Your task to perform on an android device: install app "PlayWell" Image 0: 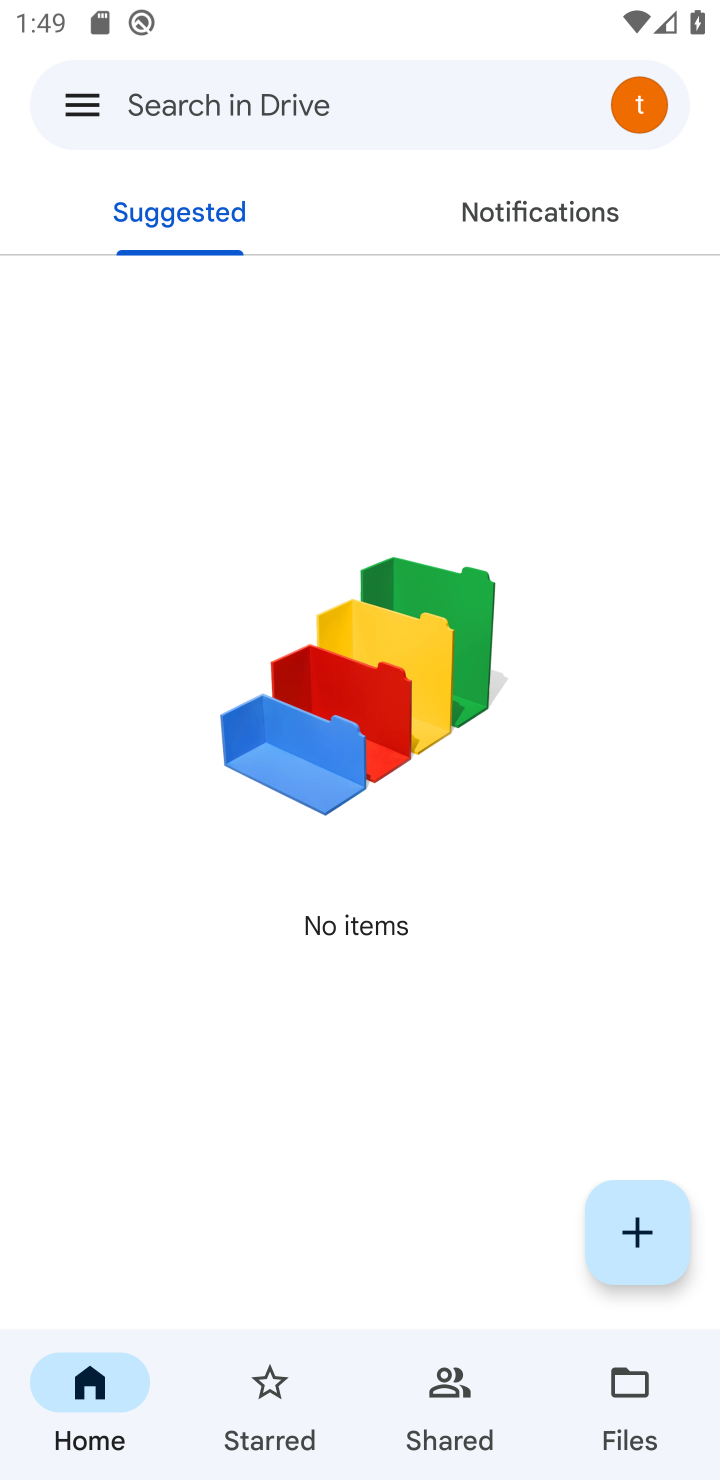
Step 0: press home button
Your task to perform on an android device: install app "PlayWell" Image 1: 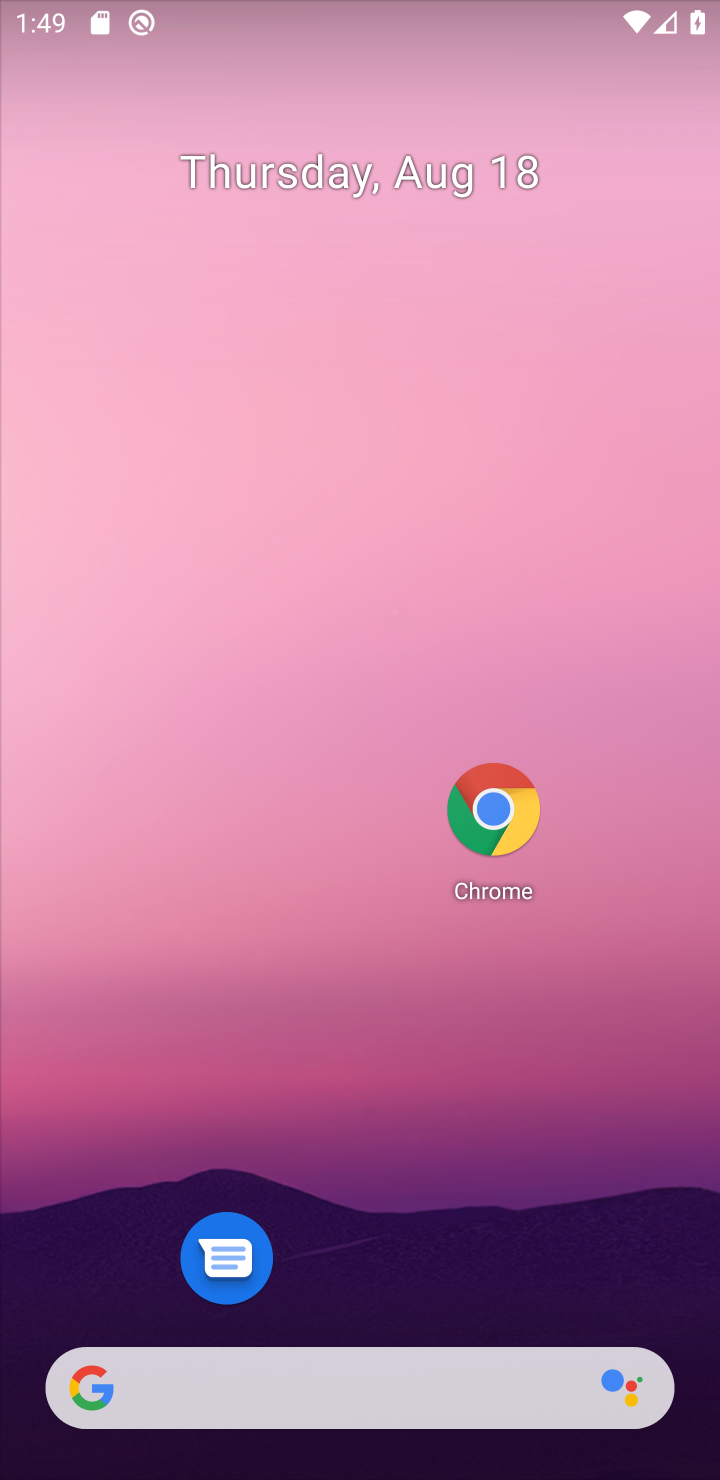
Step 1: drag from (377, 1257) to (363, 780)
Your task to perform on an android device: install app "PlayWell" Image 2: 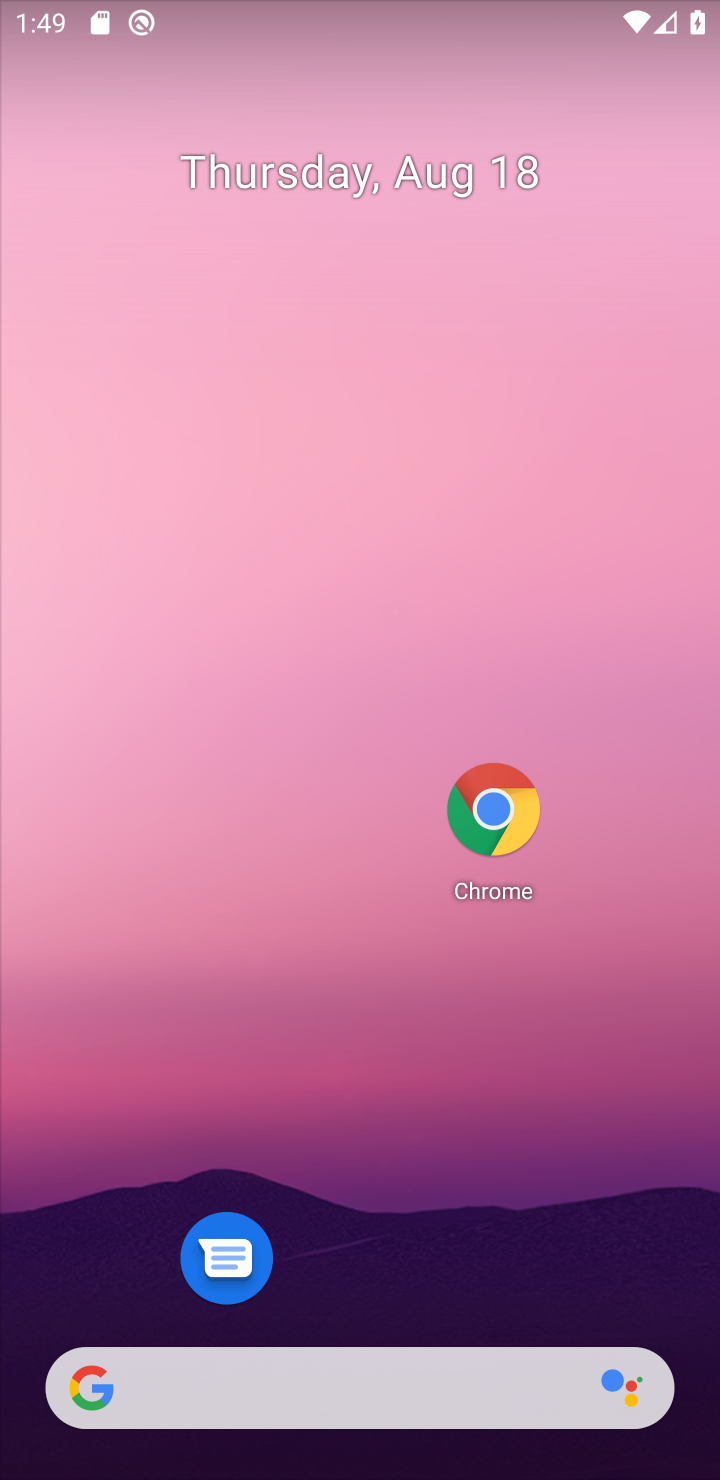
Step 2: drag from (400, 1183) to (392, 438)
Your task to perform on an android device: install app "PlayWell" Image 3: 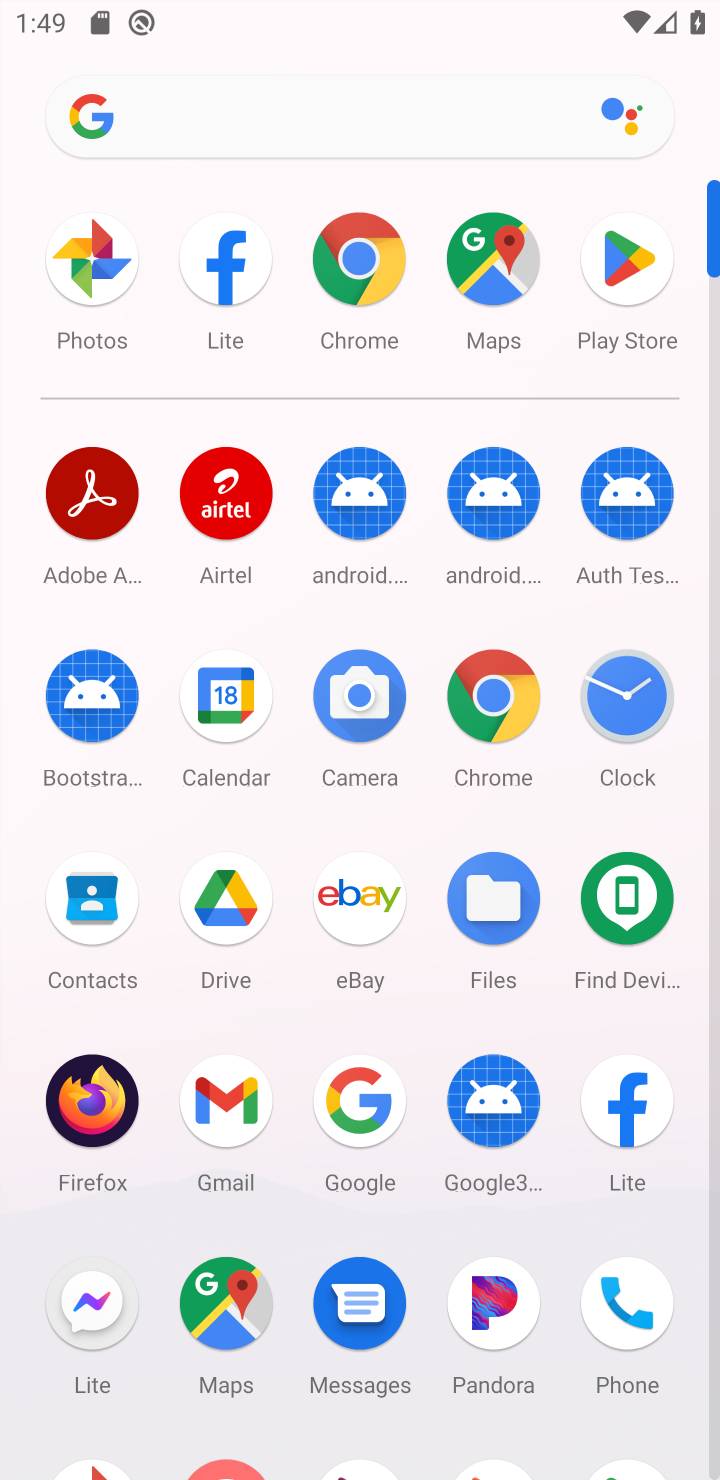
Step 3: click (586, 265)
Your task to perform on an android device: install app "PlayWell" Image 4: 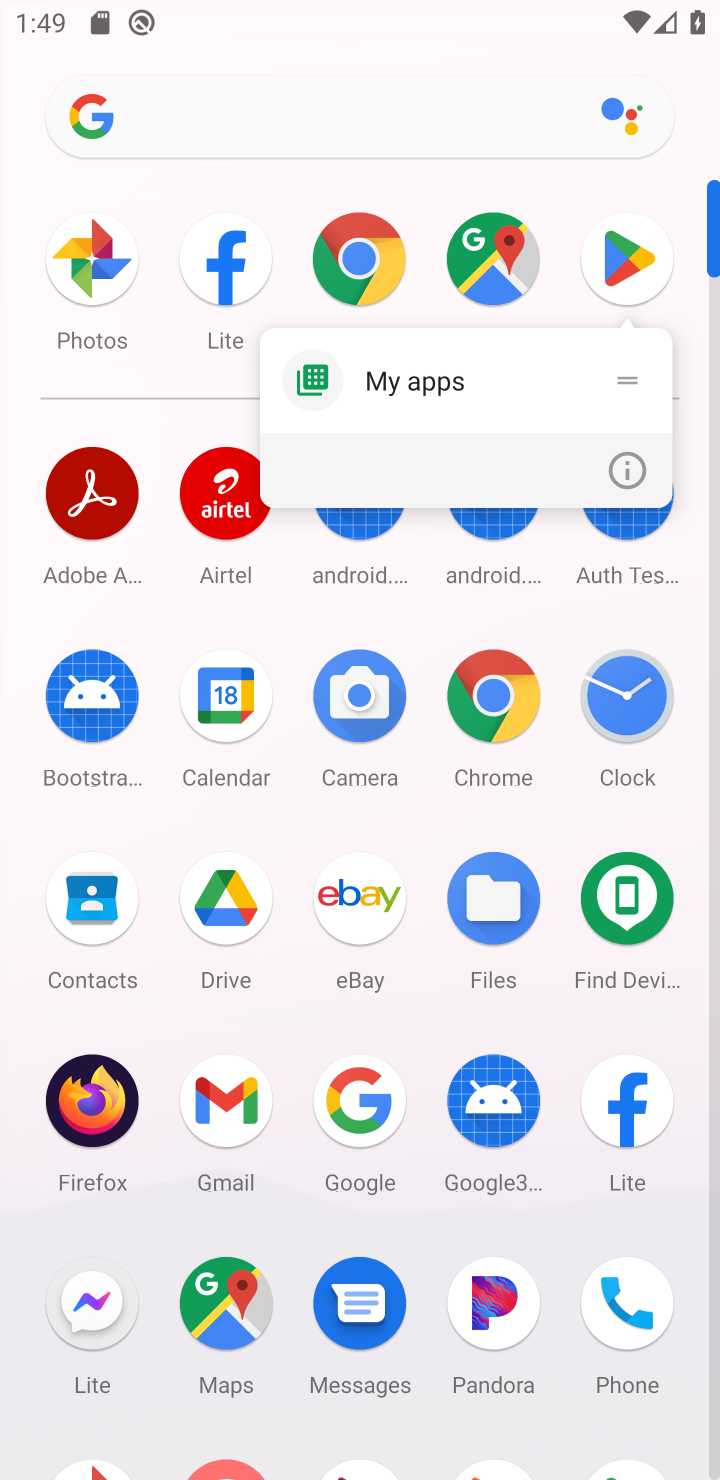
Step 4: click (643, 256)
Your task to perform on an android device: install app "PlayWell" Image 5: 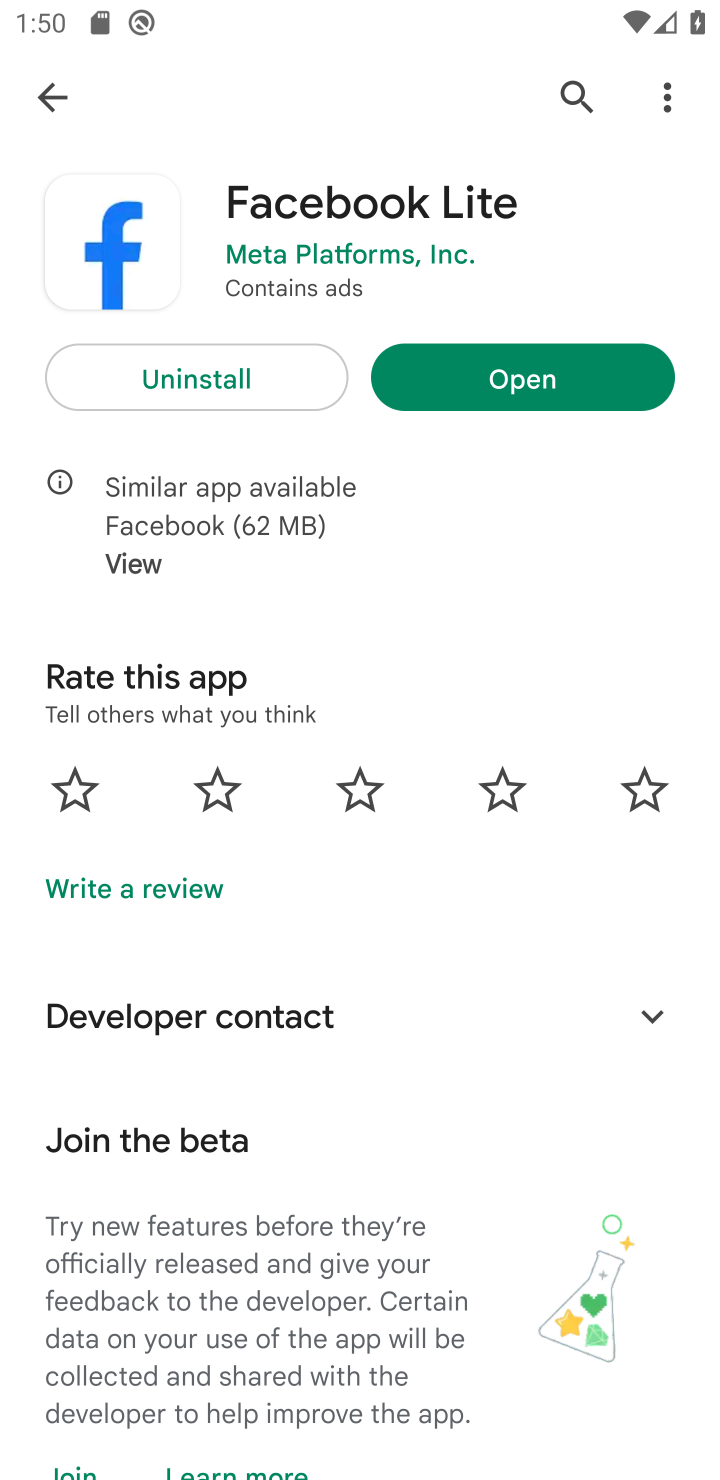
Step 5: click (581, 345)
Your task to perform on an android device: install app "PlayWell" Image 6: 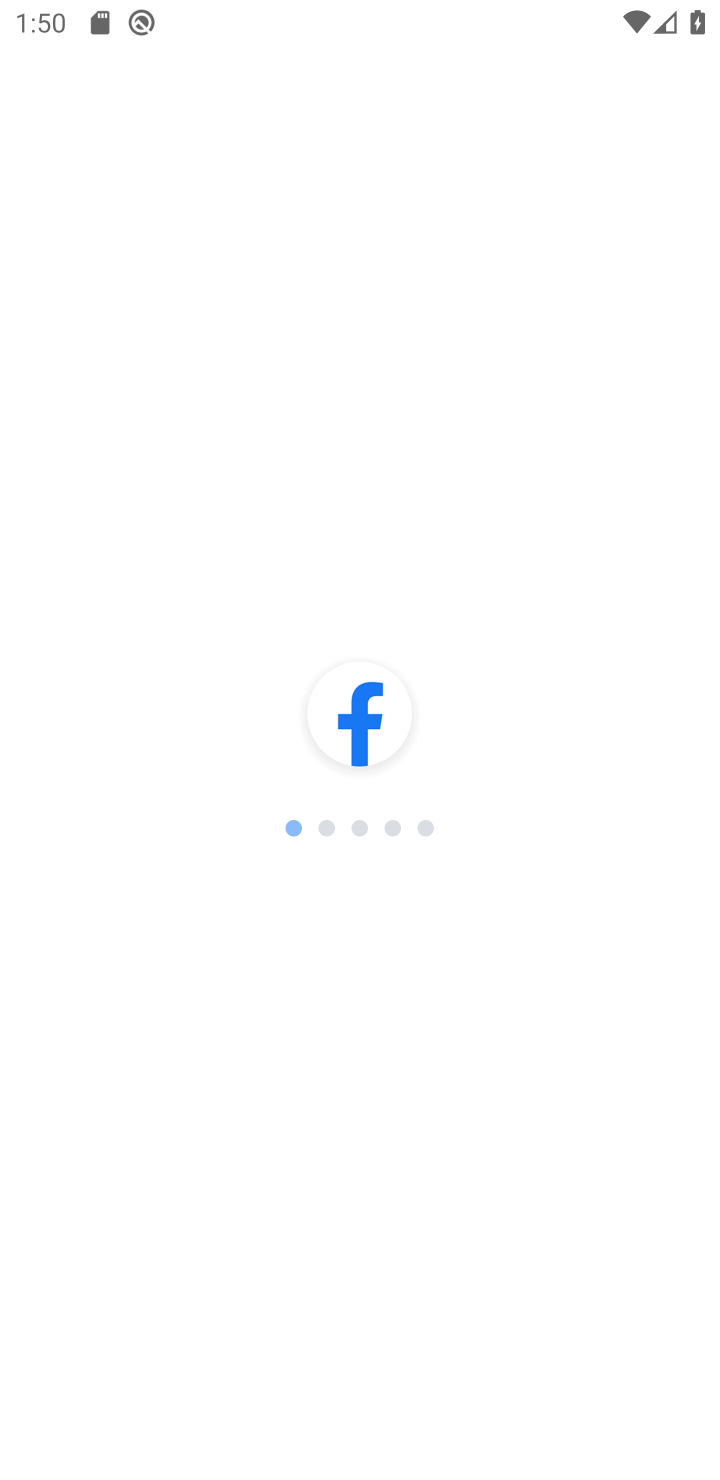
Step 6: press back button
Your task to perform on an android device: install app "PlayWell" Image 7: 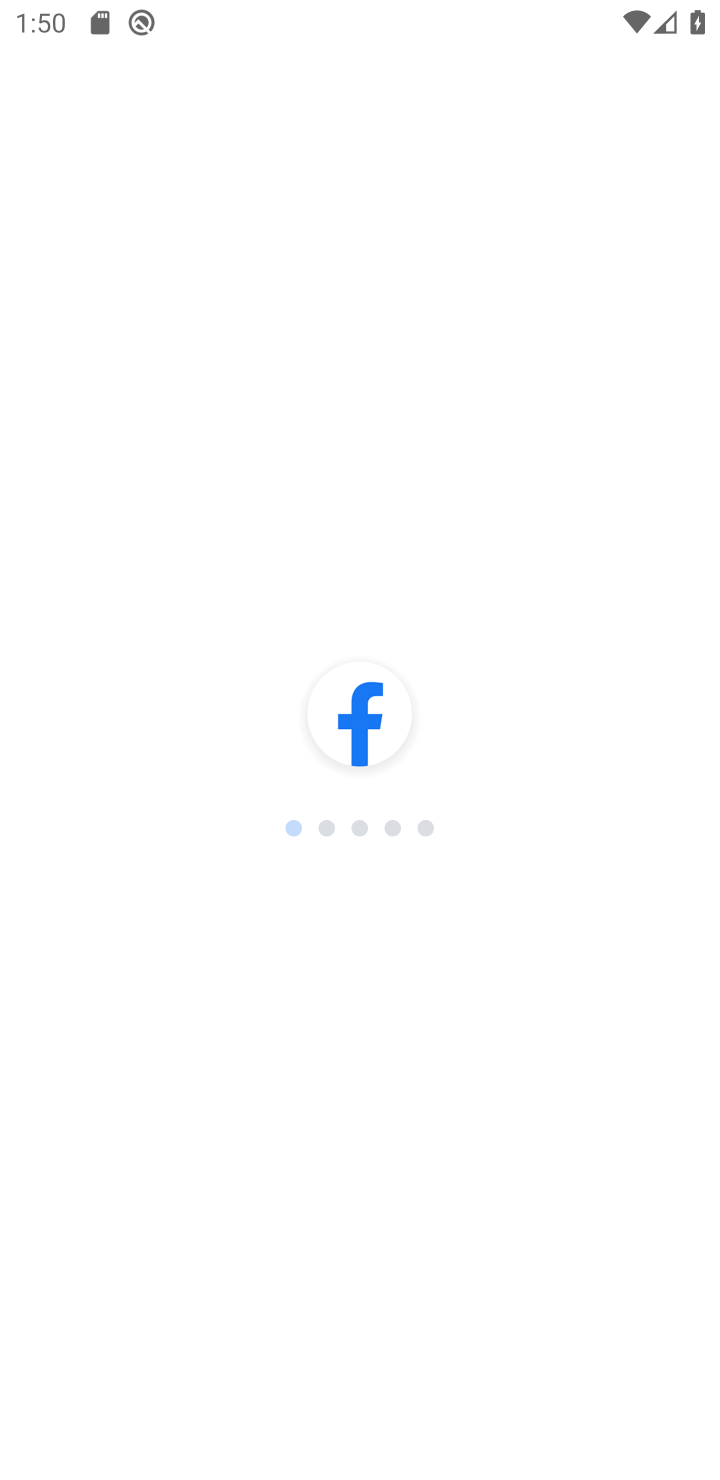
Step 7: press back button
Your task to perform on an android device: install app "PlayWell" Image 8: 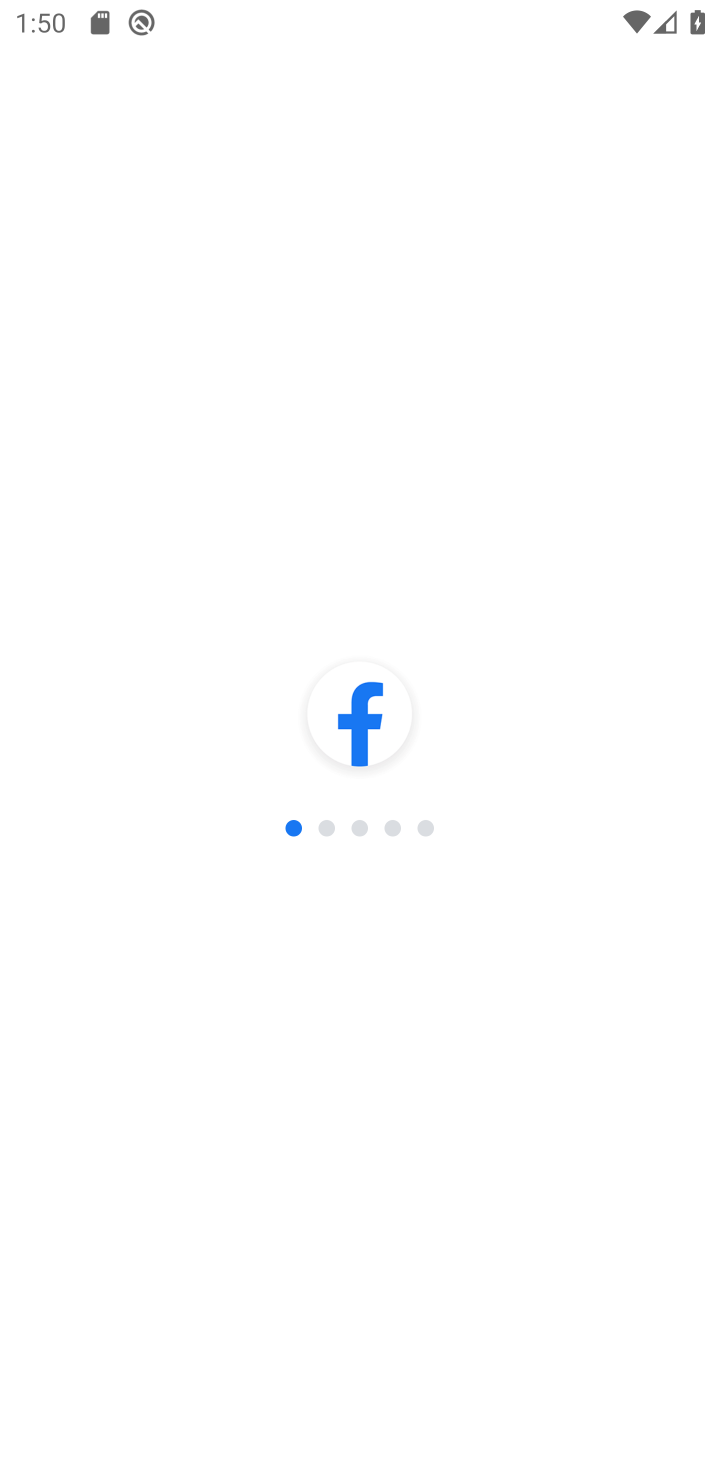
Step 8: press home button
Your task to perform on an android device: install app "PlayWell" Image 9: 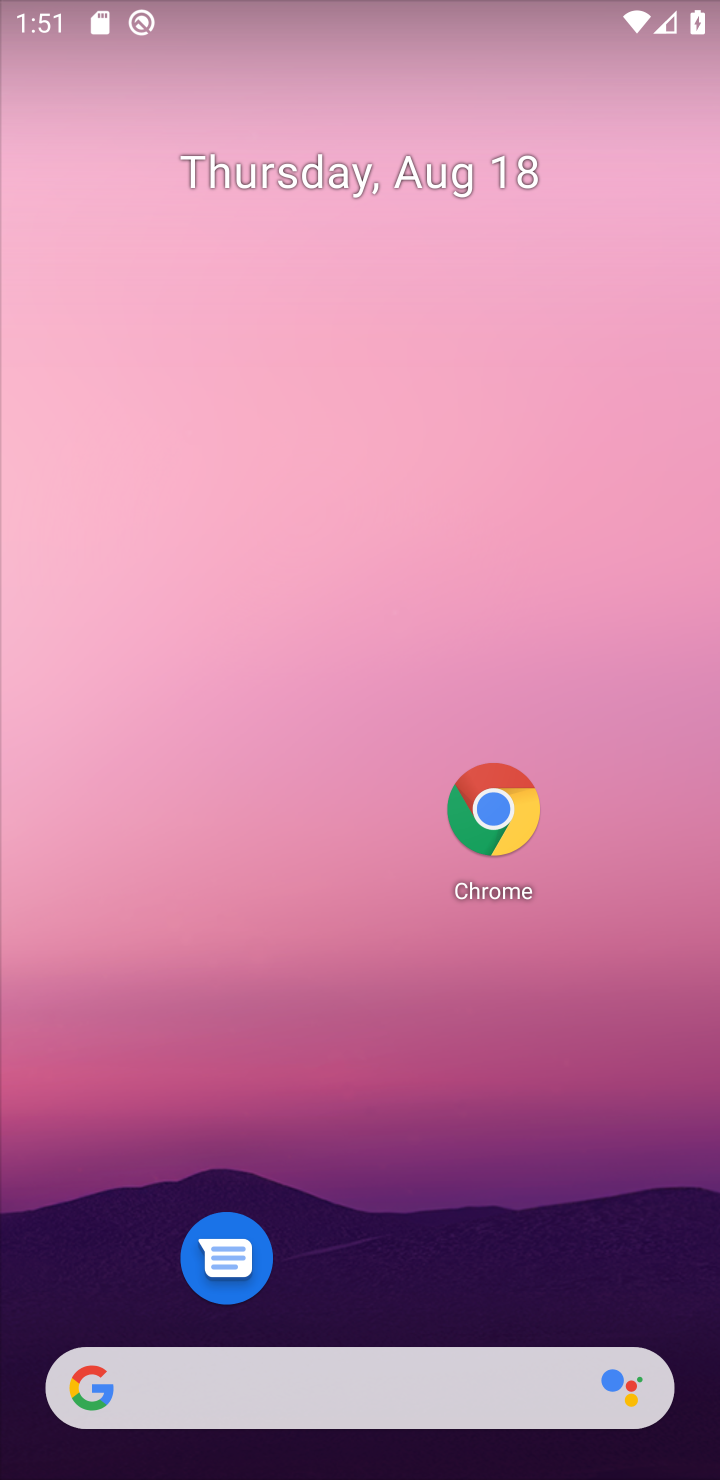
Step 9: click (360, 395)
Your task to perform on an android device: install app "PlayWell" Image 10: 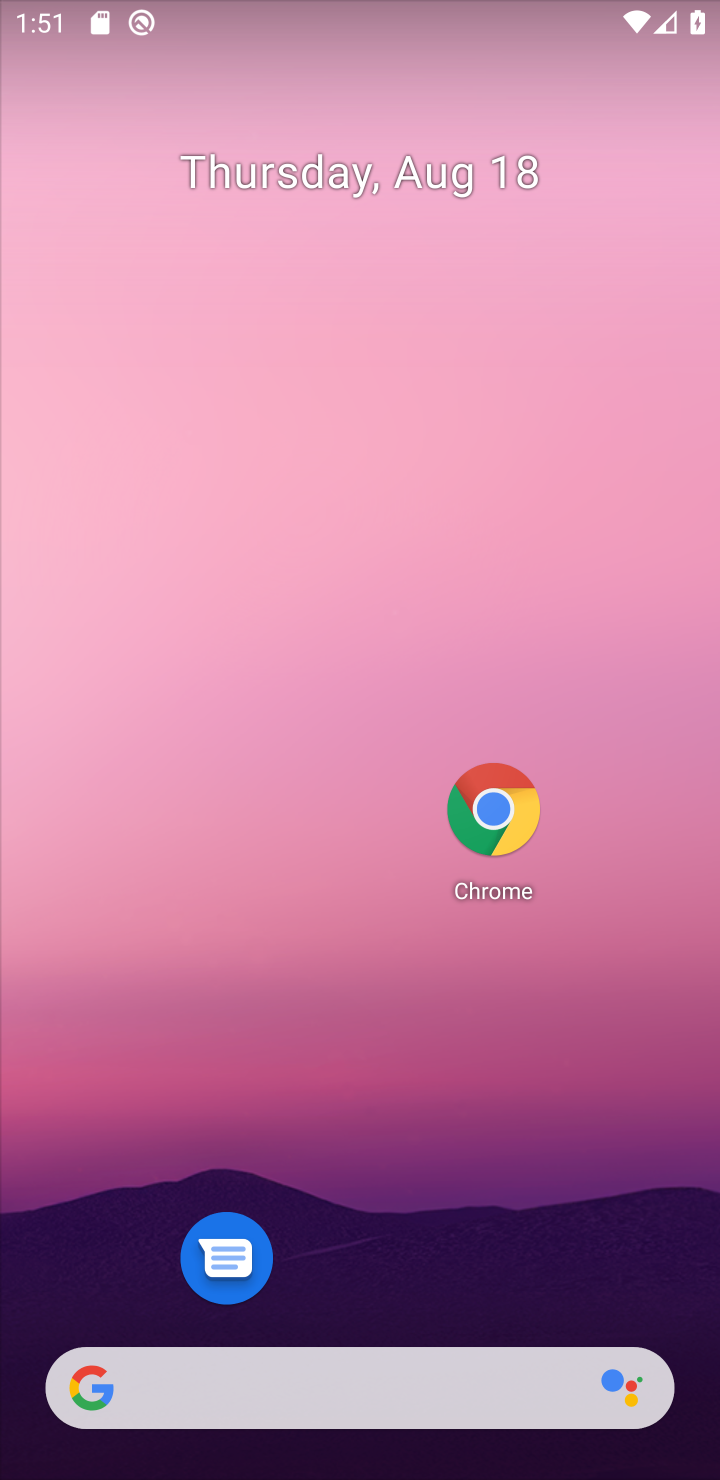
Step 10: drag from (336, 509) to (333, 332)
Your task to perform on an android device: install app "PlayWell" Image 11: 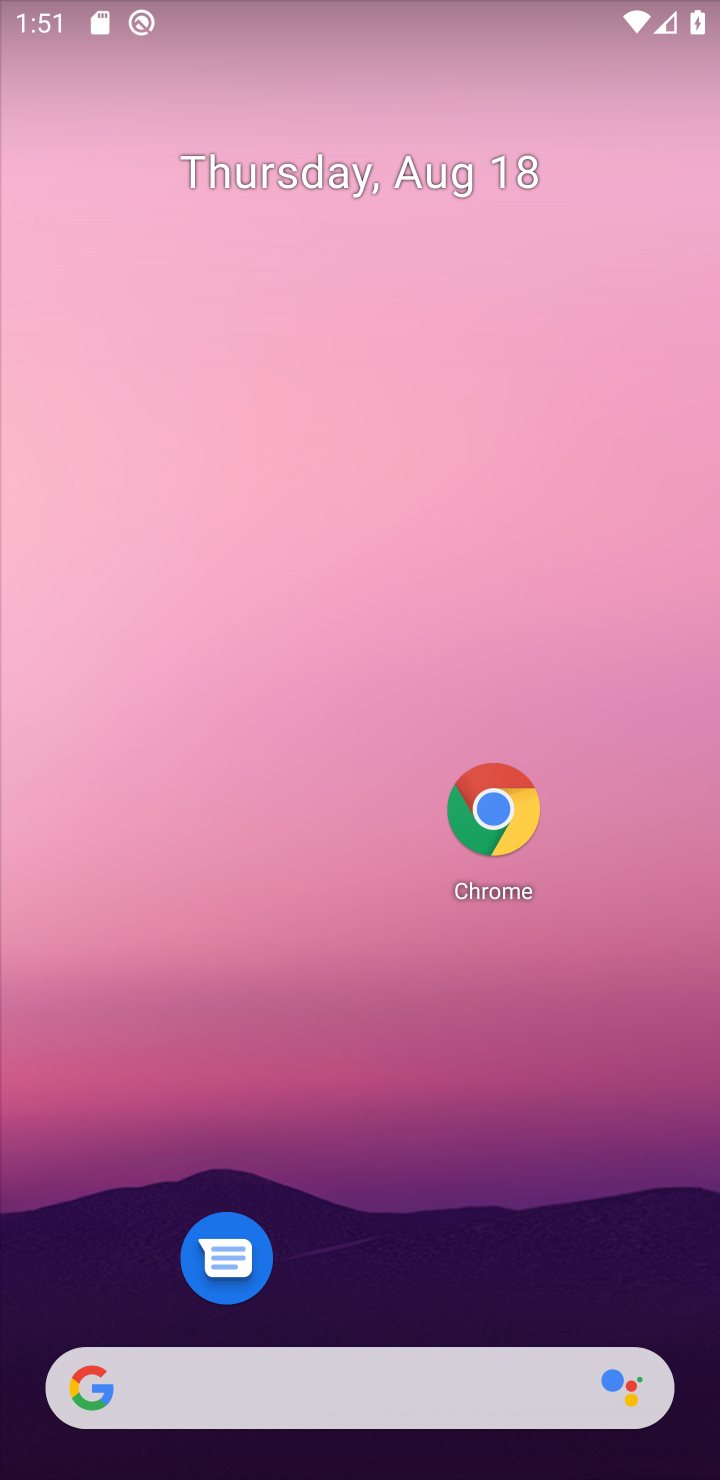
Step 11: drag from (336, 1010) to (291, 277)
Your task to perform on an android device: install app "PlayWell" Image 12: 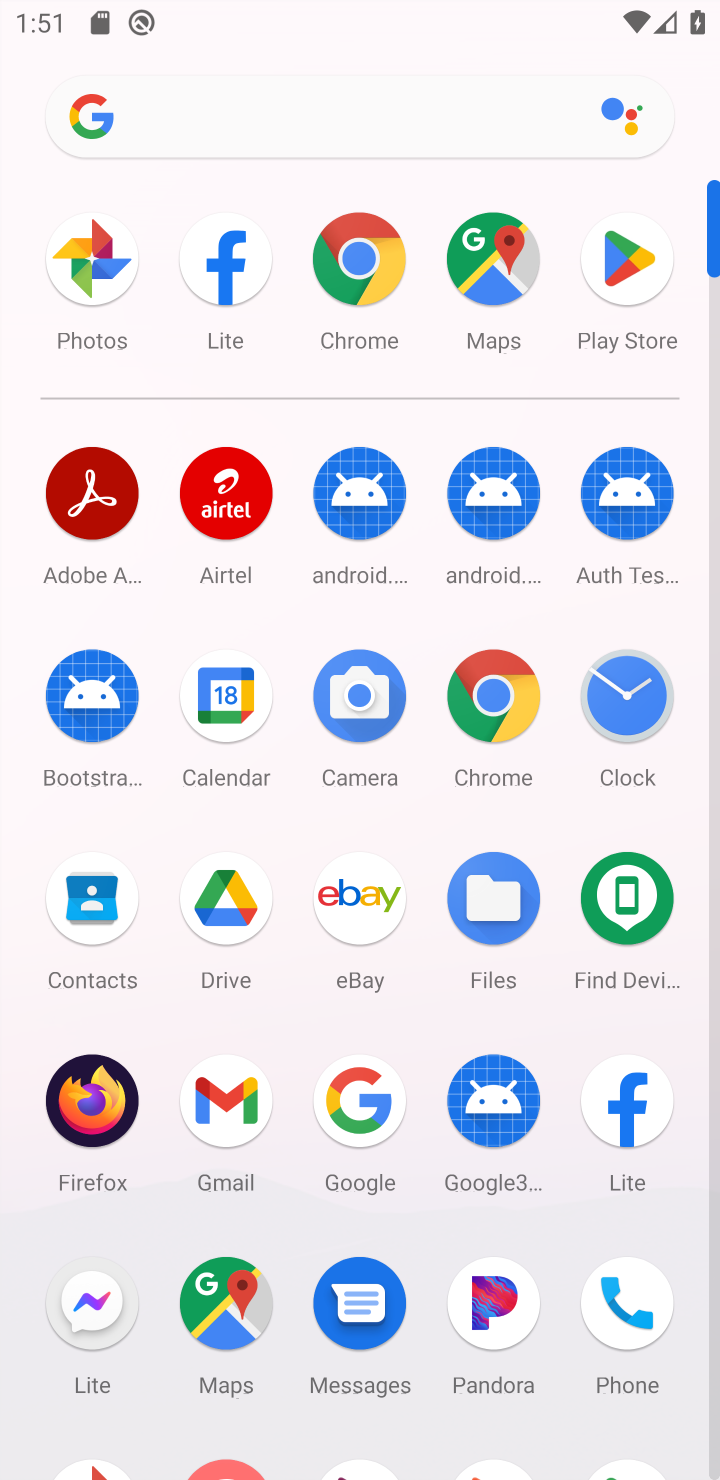
Step 12: click (608, 260)
Your task to perform on an android device: install app "PlayWell" Image 13: 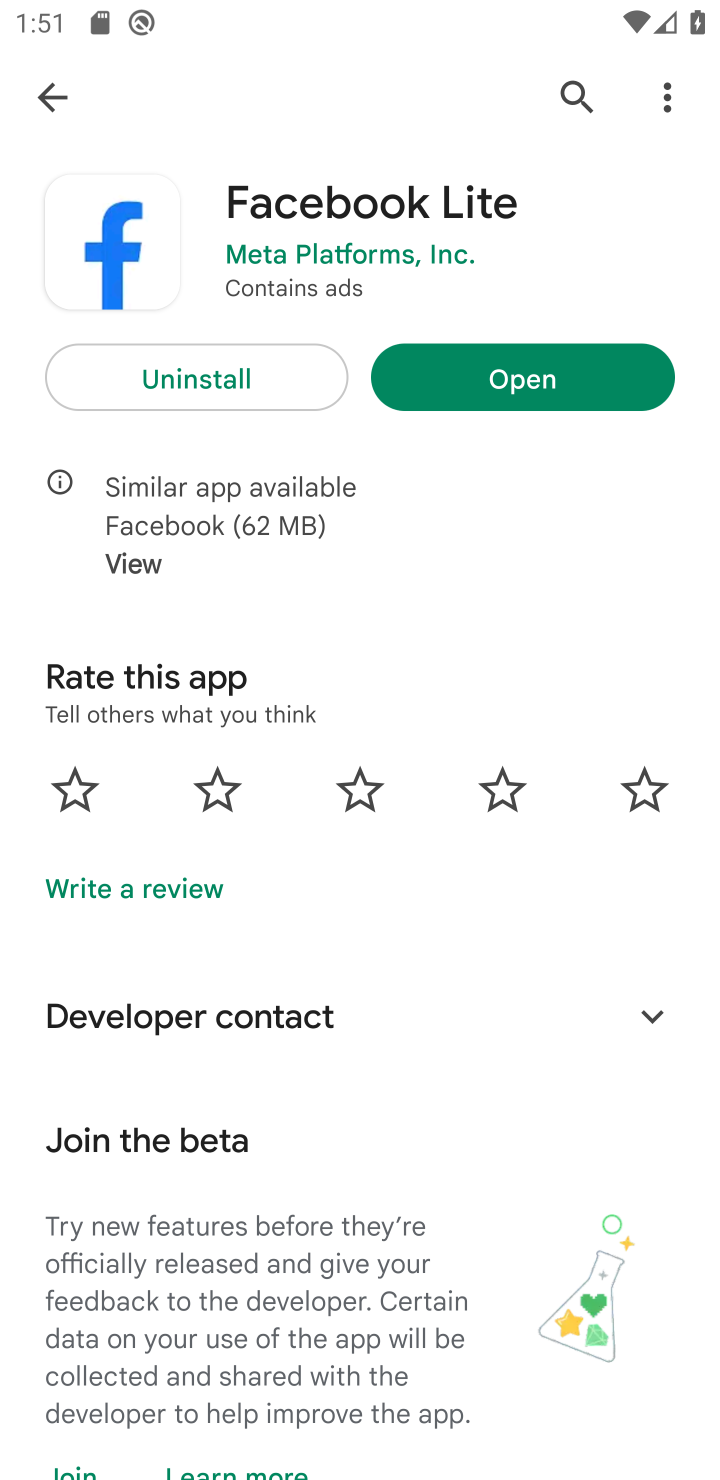
Step 13: click (35, 64)
Your task to perform on an android device: install app "PlayWell" Image 14: 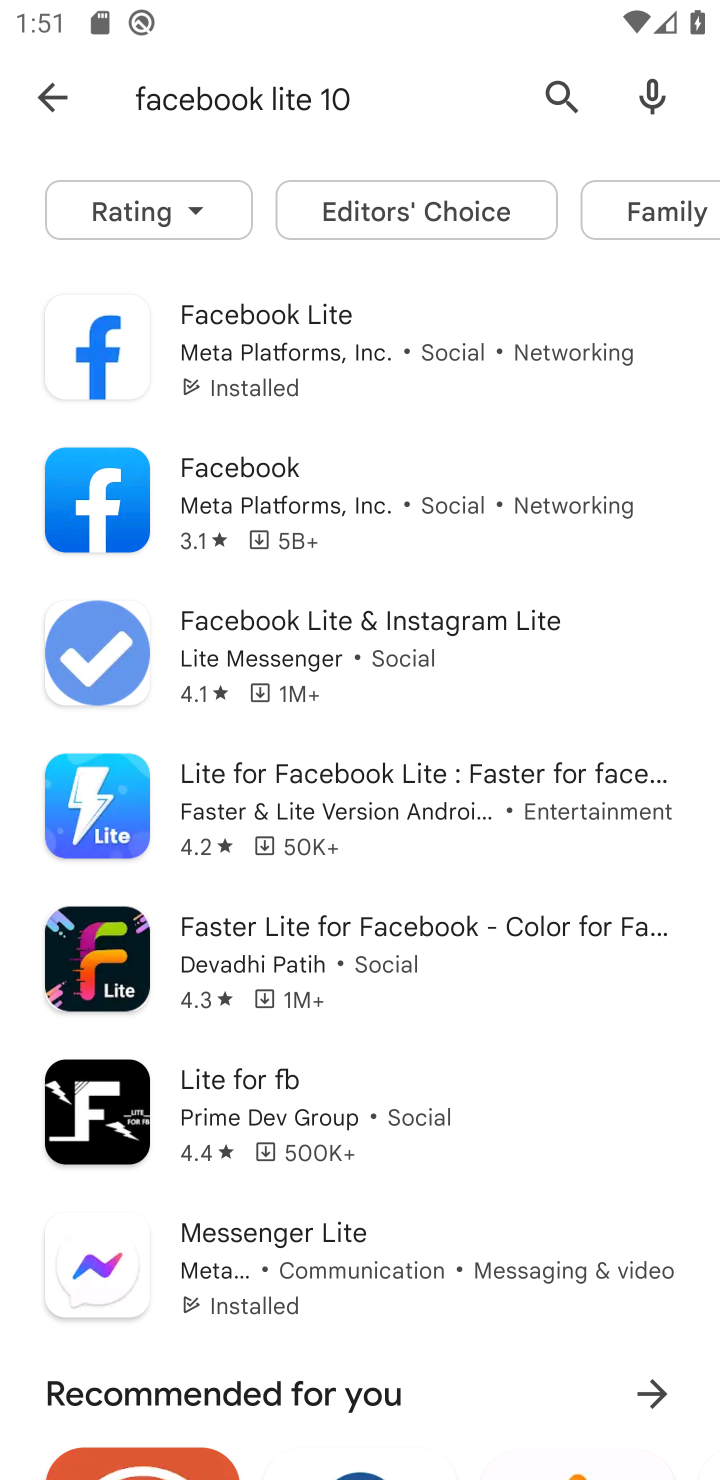
Step 14: click (564, 81)
Your task to perform on an android device: install app "PlayWell" Image 15: 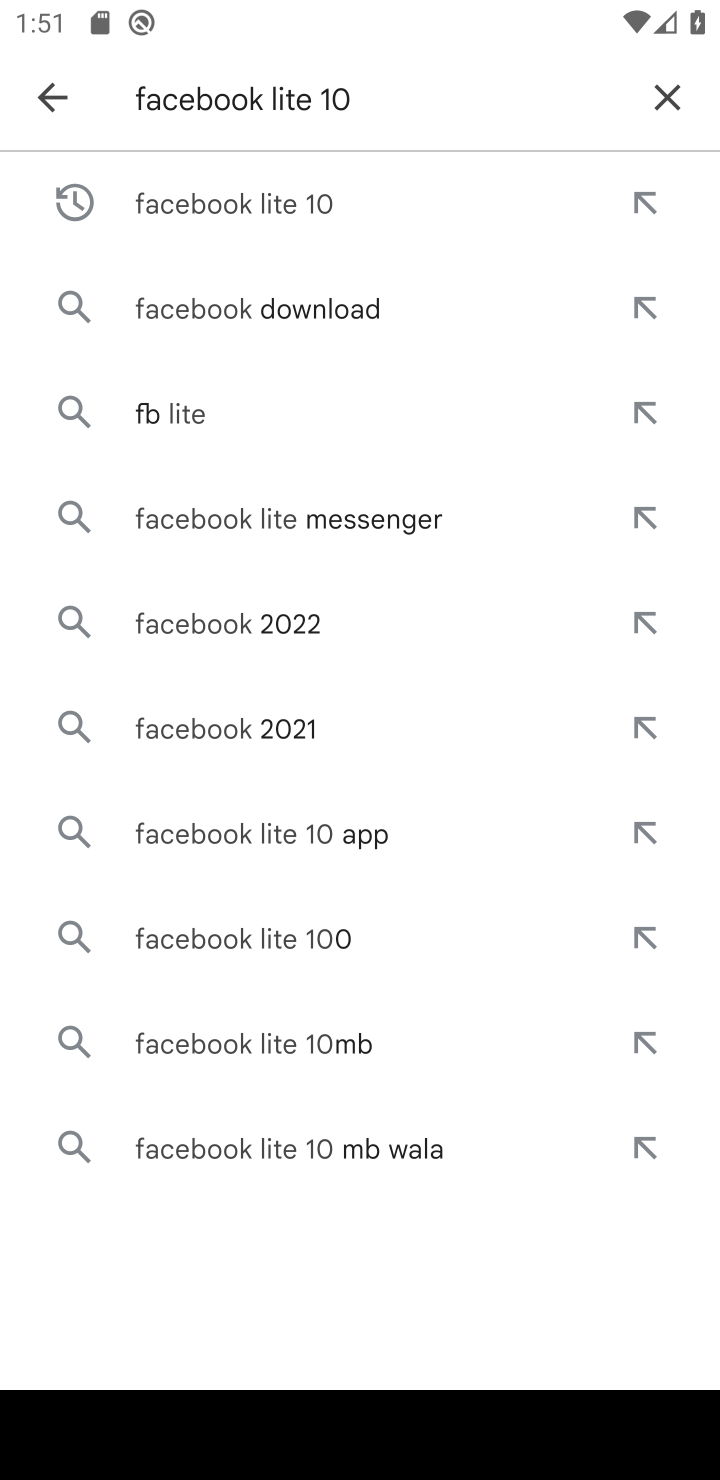
Step 15: click (673, 88)
Your task to perform on an android device: install app "PlayWell" Image 16: 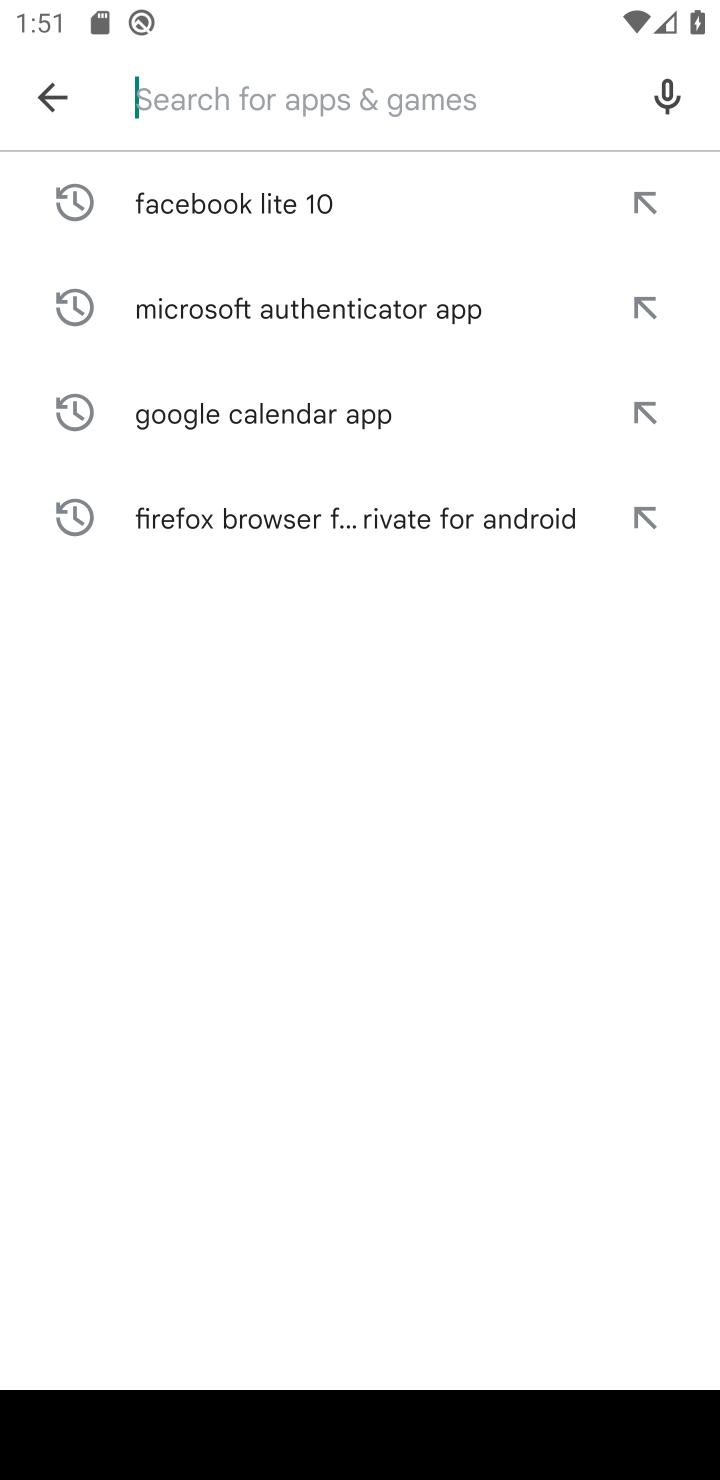
Step 16: click (233, 89)
Your task to perform on an android device: install app "PlayWell" Image 17: 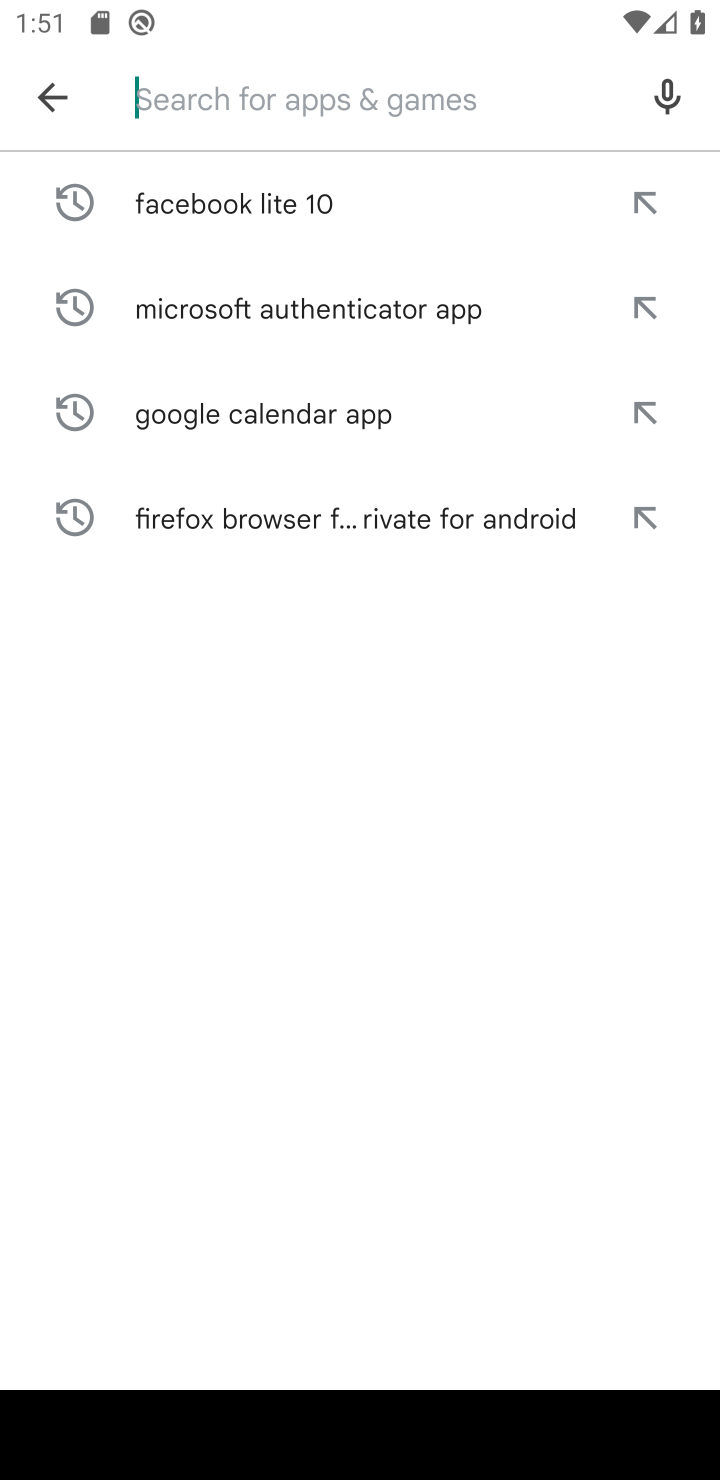
Step 17: type "PlayWell "
Your task to perform on an android device: install app "PlayWell" Image 18: 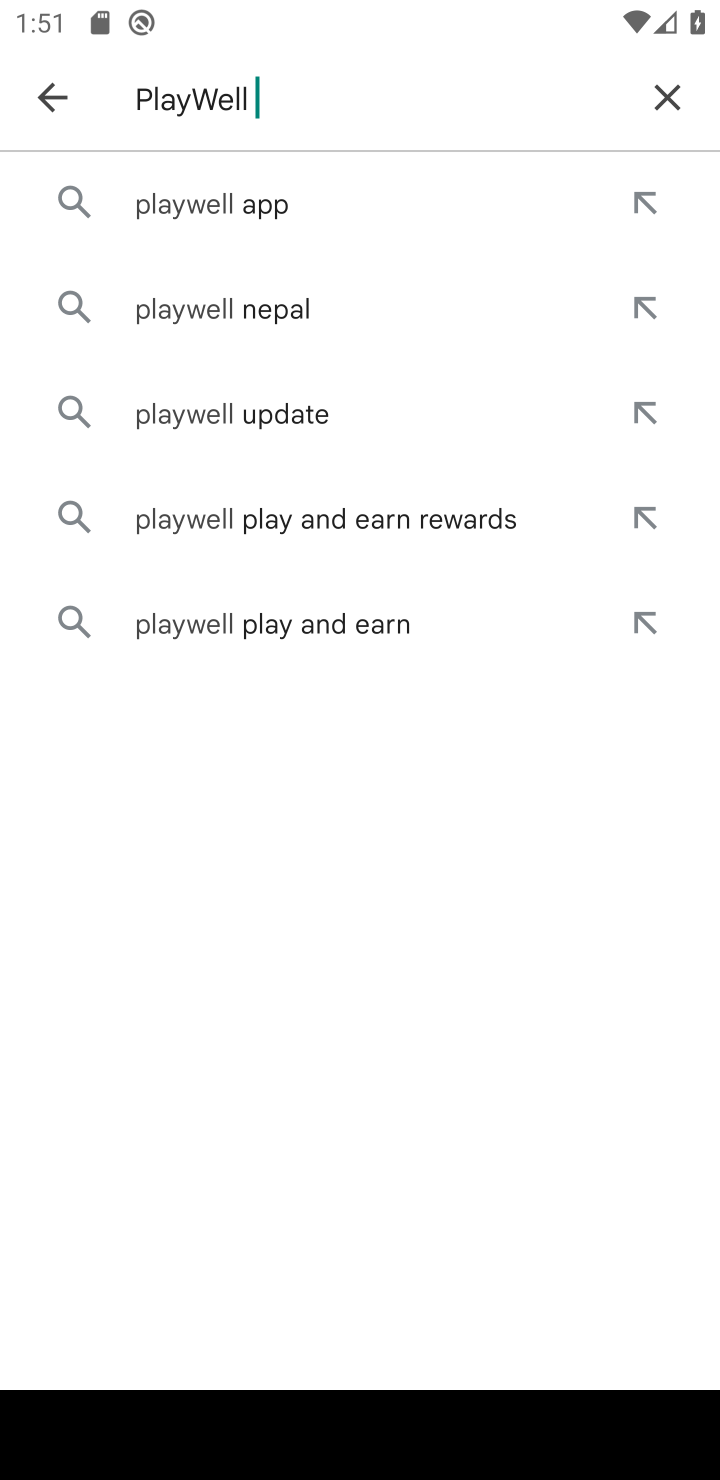
Step 18: click (265, 203)
Your task to perform on an android device: install app "PlayWell" Image 19: 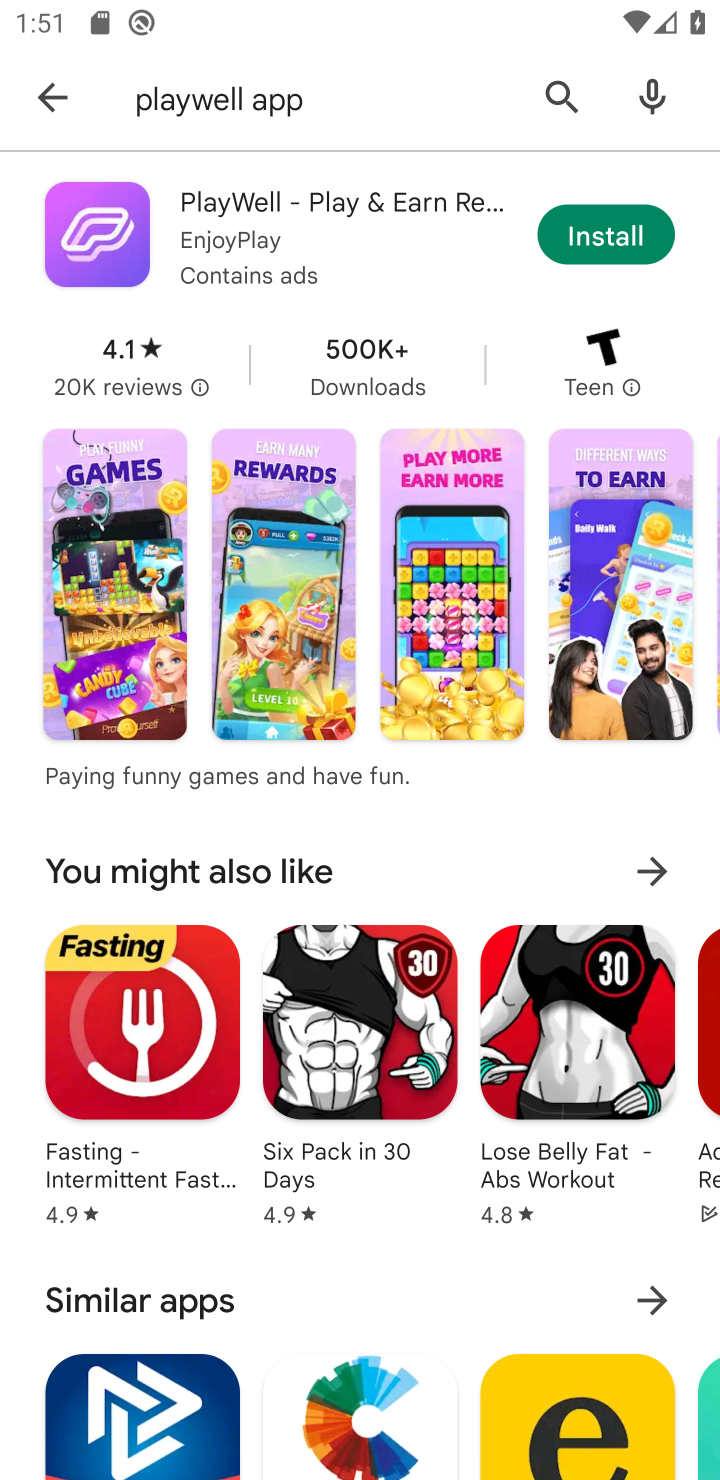
Step 19: click (579, 222)
Your task to perform on an android device: install app "PlayWell" Image 20: 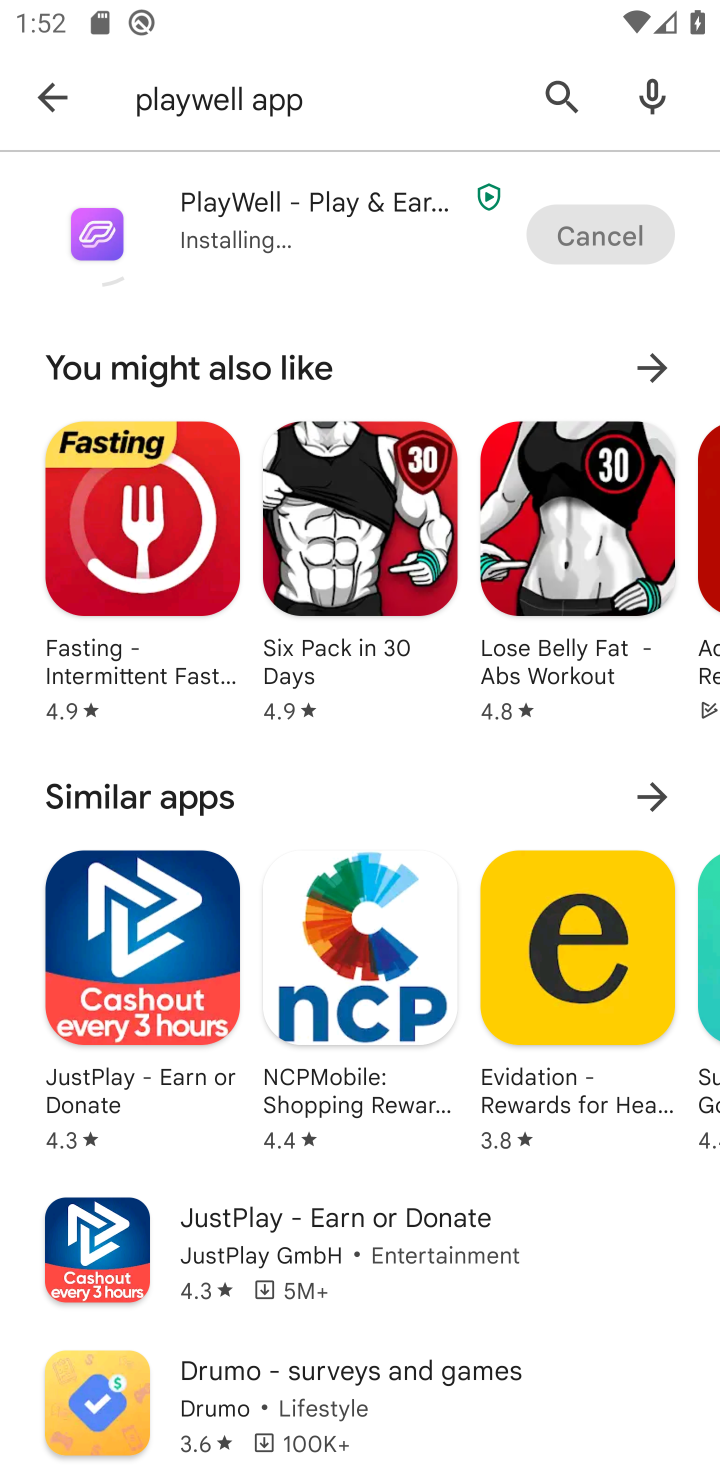
Step 20: task complete